Your task to perform on an android device: See recent photos Image 0: 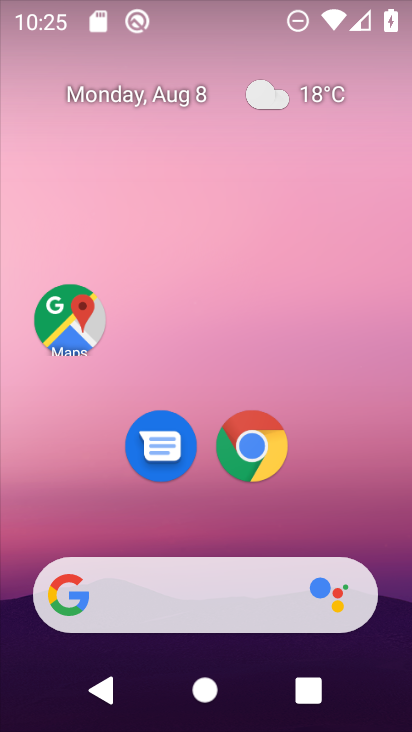
Step 0: drag from (393, 648) to (347, 116)
Your task to perform on an android device: See recent photos Image 1: 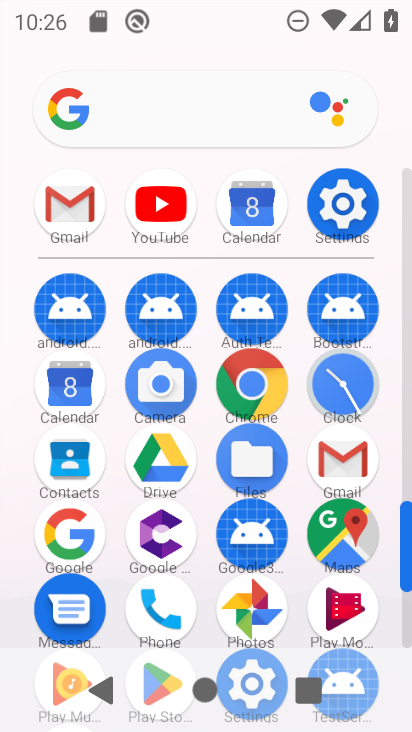
Step 1: click (254, 613)
Your task to perform on an android device: See recent photos Image 2: 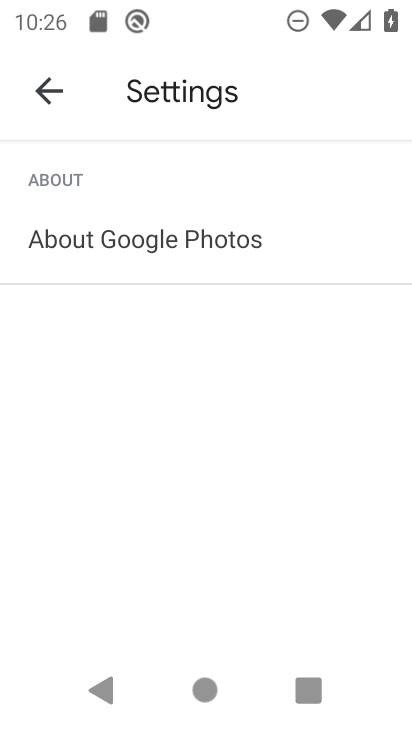
Step 2: press back button
Your task to perform on an android device: See recent photos Image 3: 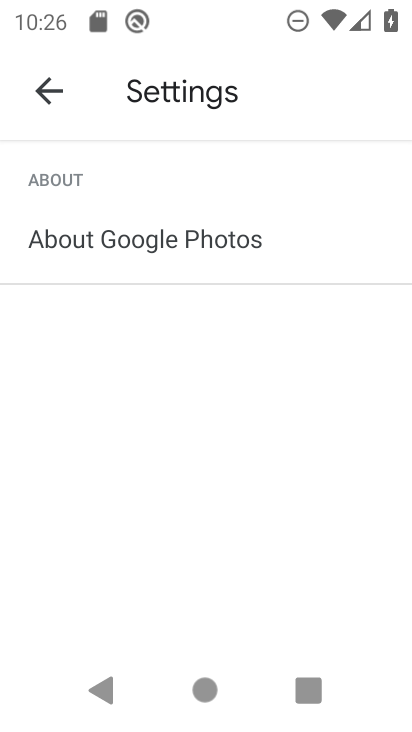
Step 3: press back button
Your task to perform on an android device: See recent photos Image 4: 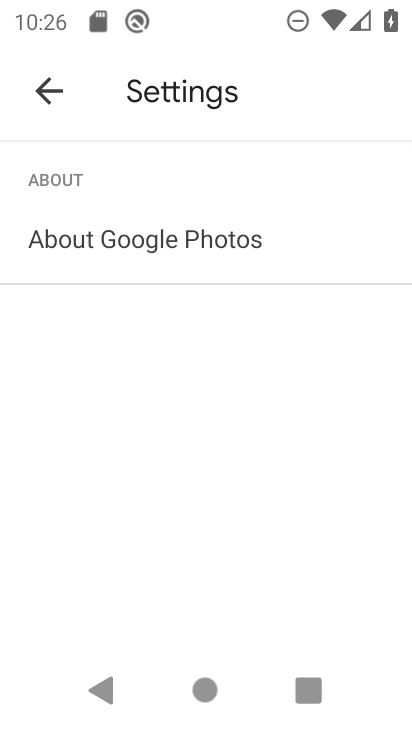
Step 4: press back button
Your task to perform on an android device: See recent photos Image 5: 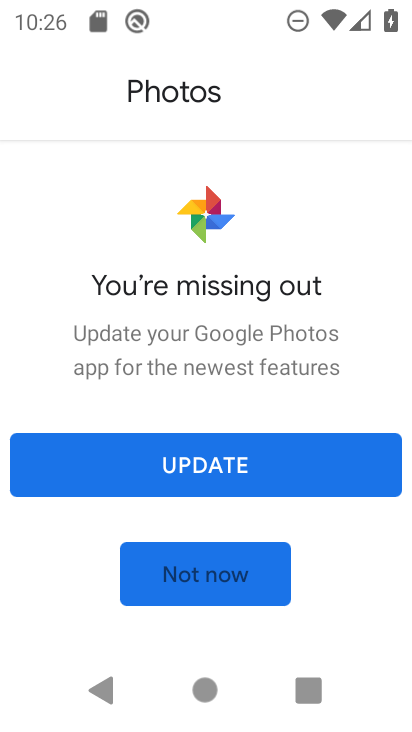
Step 5: click (198, 463)
Your task to perform on an android device: See recent photos Image 6: 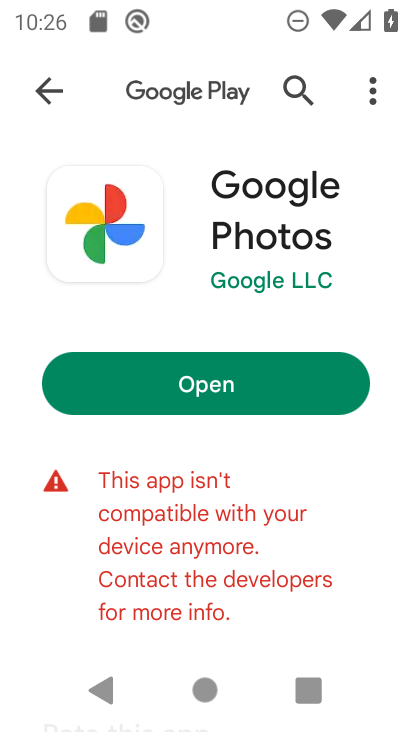
Step 6: click (203, 386)
Your task to perform on an android device: See recent photos Image 7: 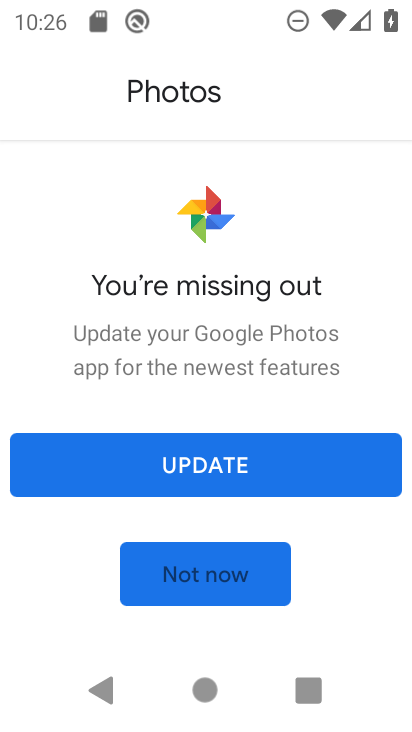
Step 7: task complete